Your task to perform on an android device: Find the most recent email from 'tau.peterbrennan.1654798856749@gmail.com' Image 0: 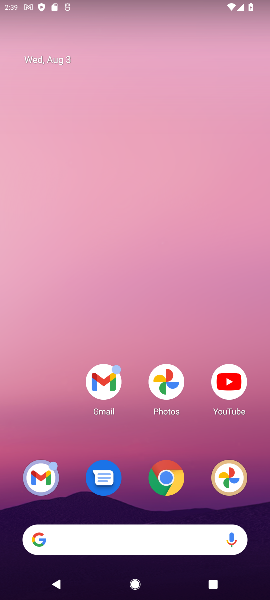
Step 0: click (109, 383)
Your task to perform on an android device: Find the most recent email from 'tau.peterbrennan.1654798856749@gmail.com' Image 1: 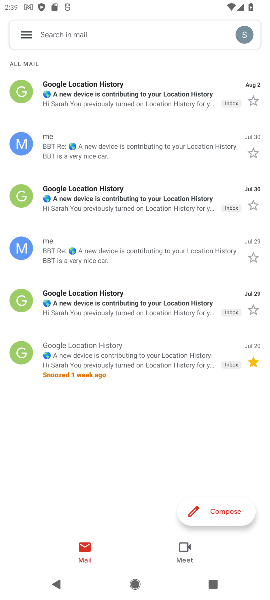
Step 1: click (108, 35)
Your task to perform on an android device: Find the most recent email from 'tau.peterbrennan.1654798856749@gmail.com' Image 2: 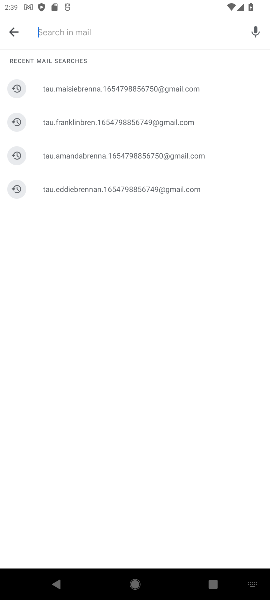
Step 2: type "tau.peterbrennan.1654798856749@gmail.com"
Your task to perform on an android device: Find the most recent email from 'tau.peterbrennan.1654798856749@gmail.com' Image 3: 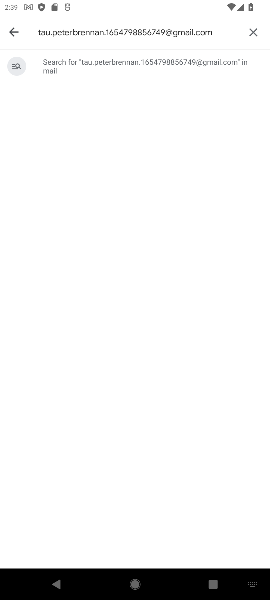
Step 3: click (147, 73)
Your task to perform on an android device: Find the most recent email from 'tau.peterbrennan.1654798856749@gmail.com' Image 4: 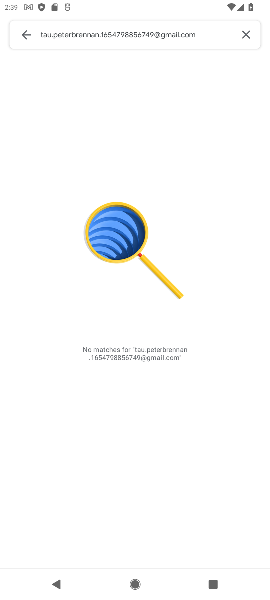
Step 4: task complete